Your task to perform on an android device: Open location settings Image 0: 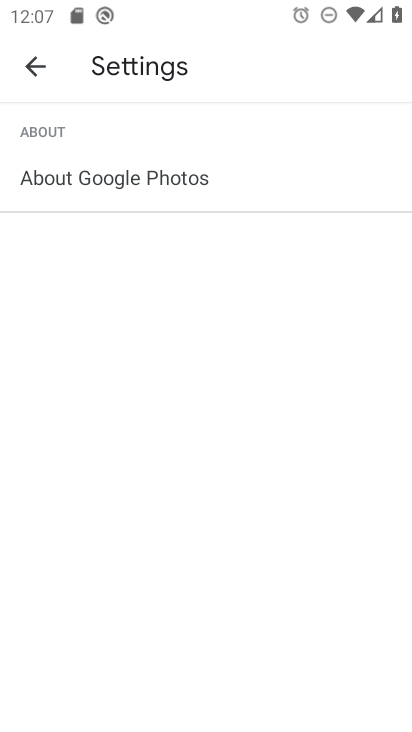
Step 0: press home button
Your task to perform on an android device: Open location settings Image 1: 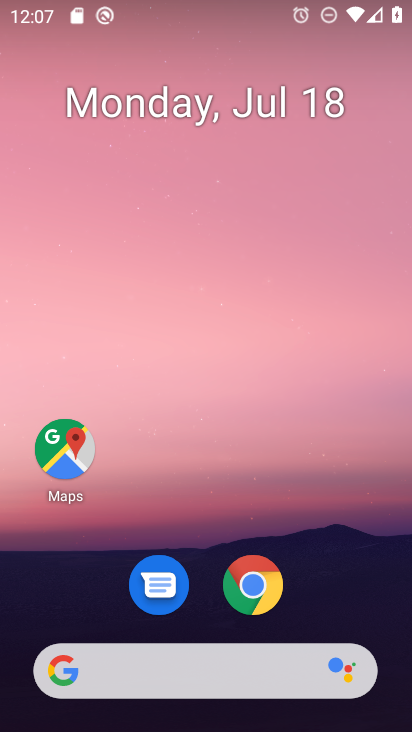
Step 1: drag from (282, 527) to (211, 41)
Your task to perform on an android device: Open location settings Image 2: 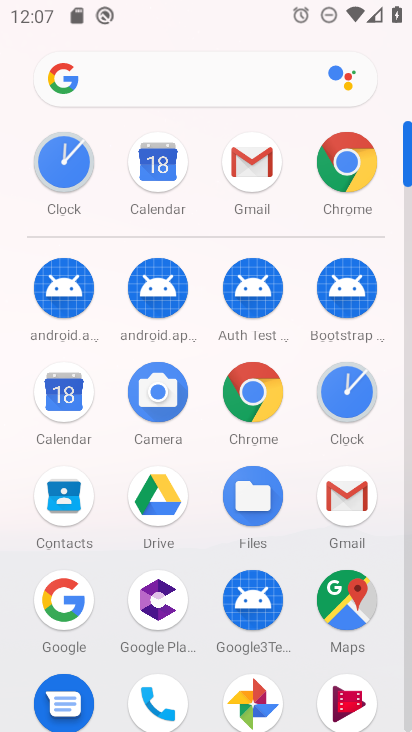
Step 2: drag from (200, 478) to (188, 174)
Your task to perform on an android device: Open location settings Image 3: 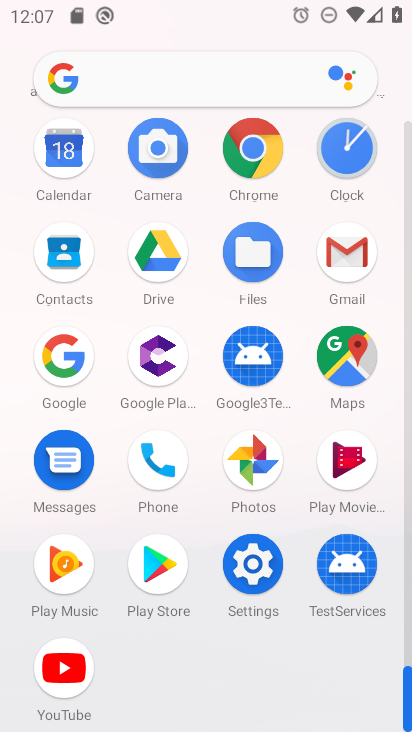
Step 3: click (248, 552)
Your task to perform on an android device: Open location settings Image 4: 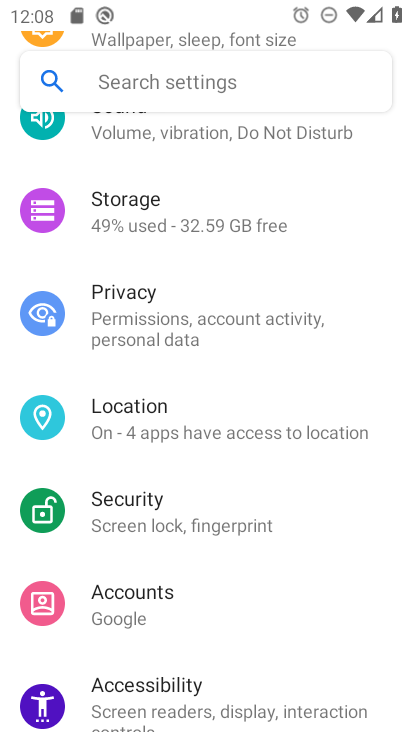
Step 4: click (205, 433)
Your task to perform on an android device: Open location settings Image 5: 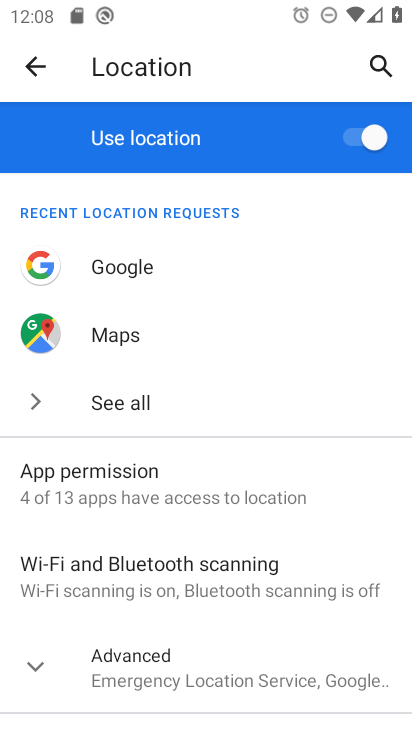
Step 5: task complete